Your task to perform on an android device: See recent photos Image 0: 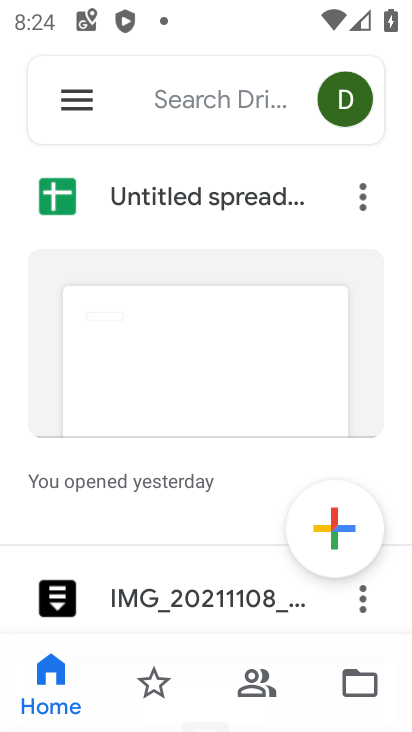
Step 0: press home button
Your task to perform on an android device: See recent photos Image 1: 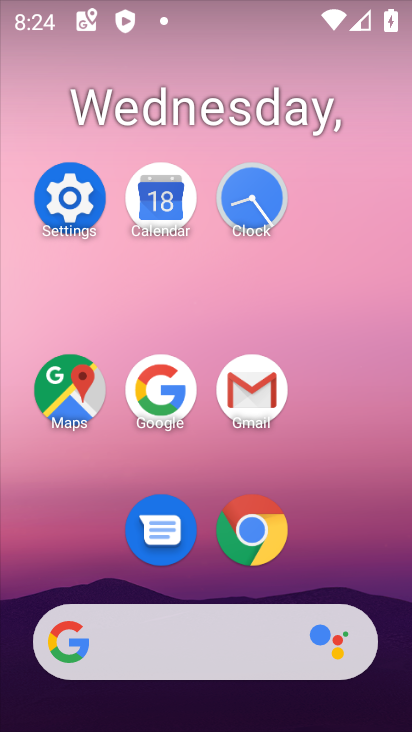
Step 1: drag from (340, 527) to (397, 114)
Your task to perform on an android device: See recent photos Image 2: 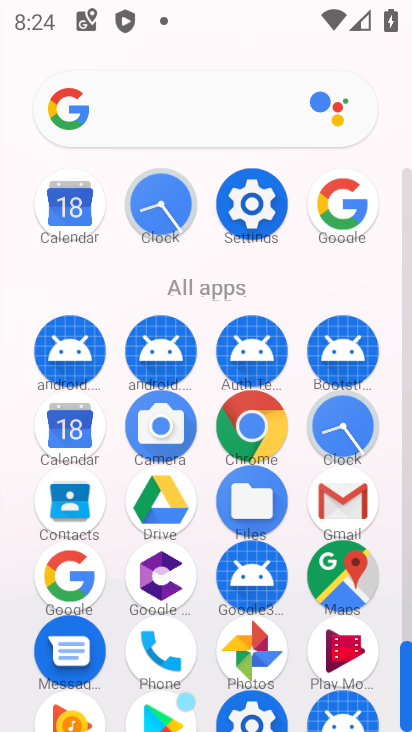
Step 2: drag from (252, 647) to (304, 359)
Your task to perform on an android device: See recent photos Image 3: 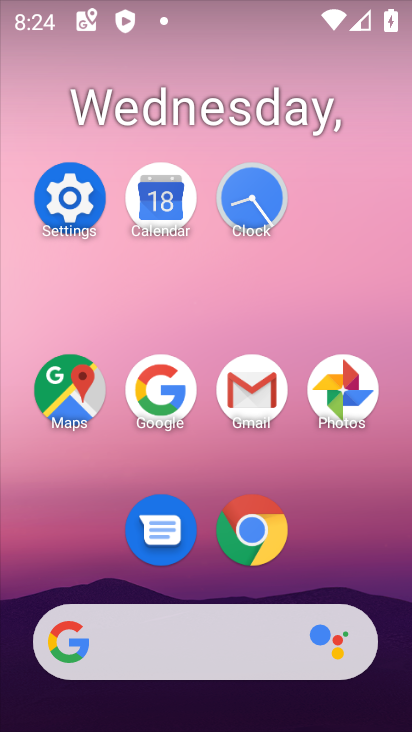
Step 3: click (352, 388)
Your task to perform on an android device: See recent photos Image 4: 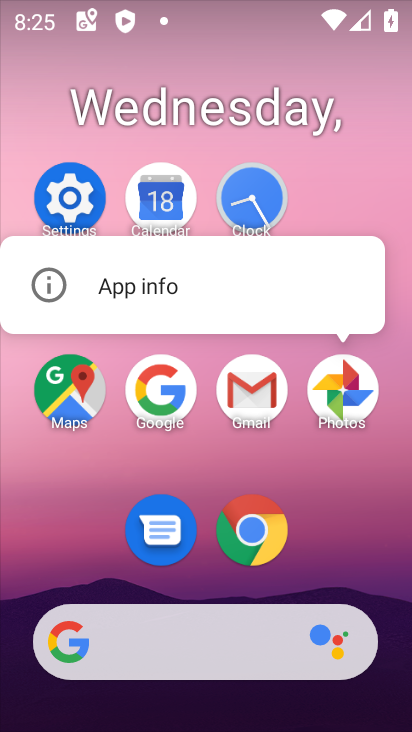
Step 4: click (350, 389)
Your task to perform on an android device: See recent photos Image 5: 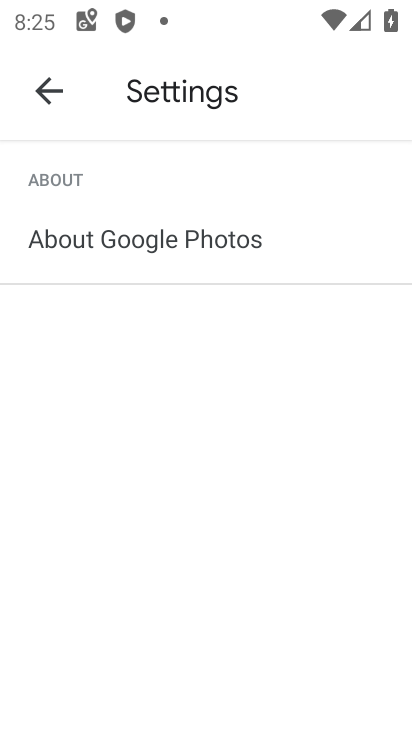
Step 5: click (52, 84)
Your task to perform on an android device: See recent photos Image 6: 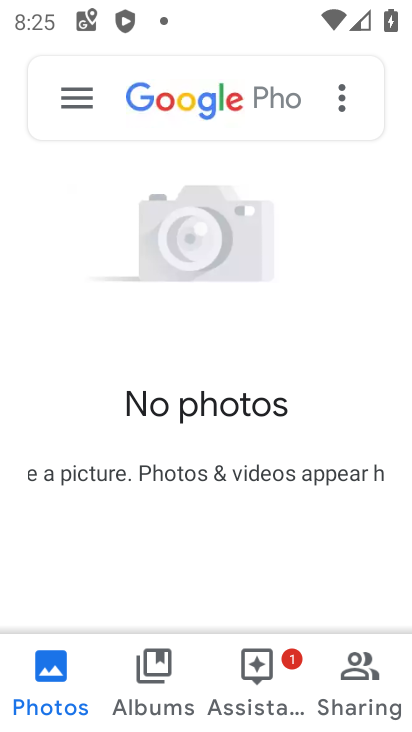
Step 6: task complete